Your task to perform on an android device: change the clock style Image 0: 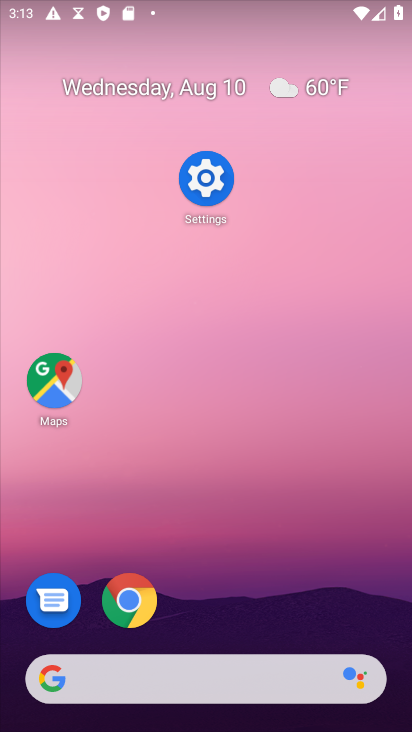
Step 0: drag from (253, 629) to (194, 24)
Your task to perform on an android device: change the clock style Image 1: 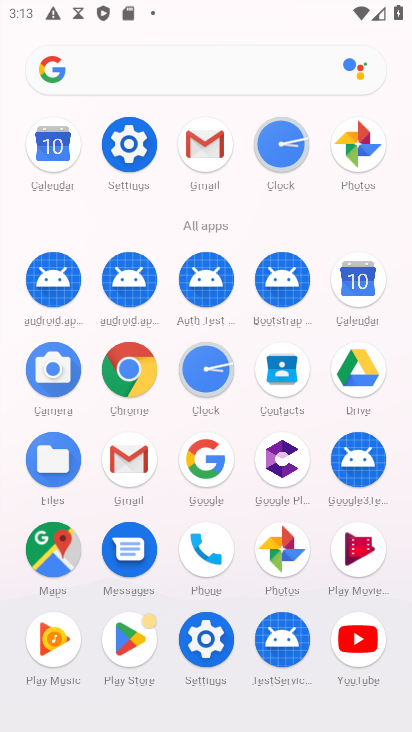
Step 1: click (188, 382)
Your task to perform on an android device: change the clock style Image 2: 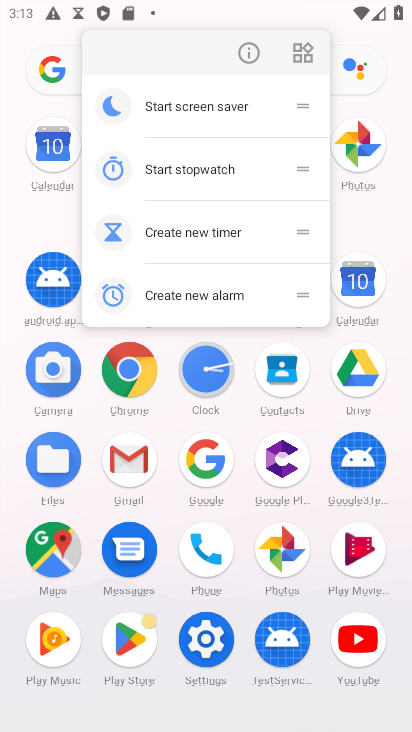
Step 2: click (198, 386)
Your task to perform on an android device: change the clock style Image 3: 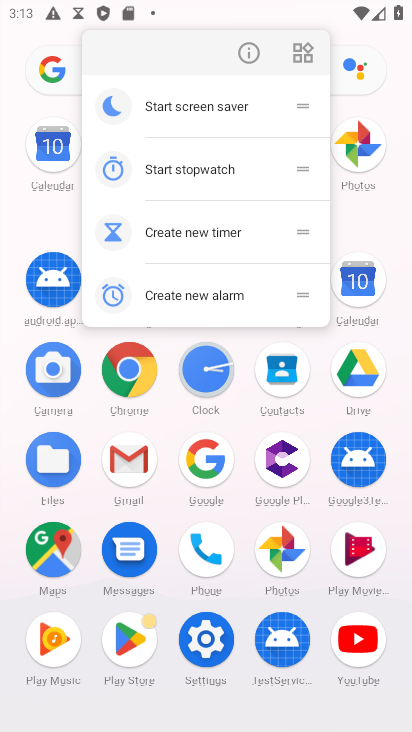
Step 3: click (196, 386)
Your task to perform on an android device: change the clock style Image 4: 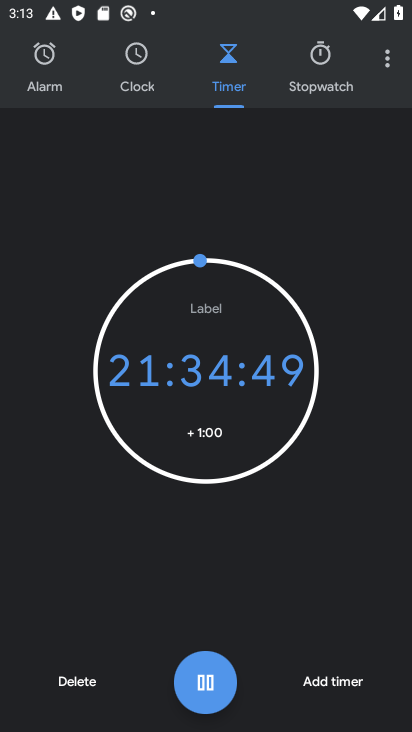
Step 4: click (385, 58)
Your task to perform on an android device: change the clock style Image 5: 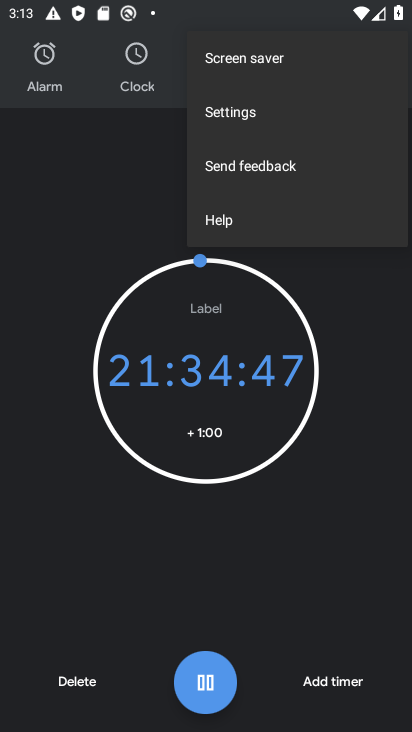
Step 5: click (217, 116)
Your task to perform on an android device: change the clock style Image 6: 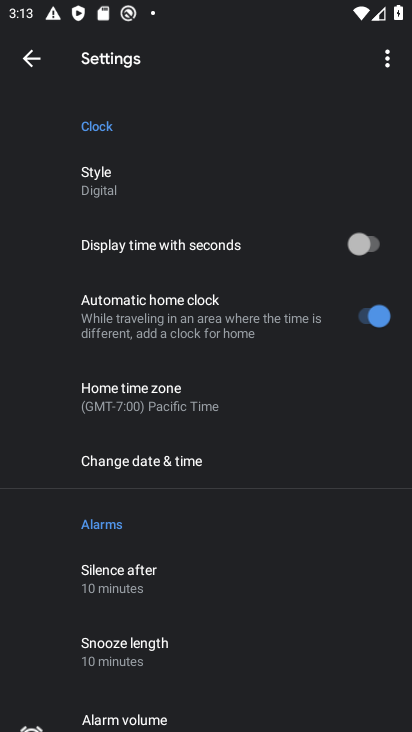
Step 6: click (107, 192)
Your task to perform on an android device: change the clock style Image 7: 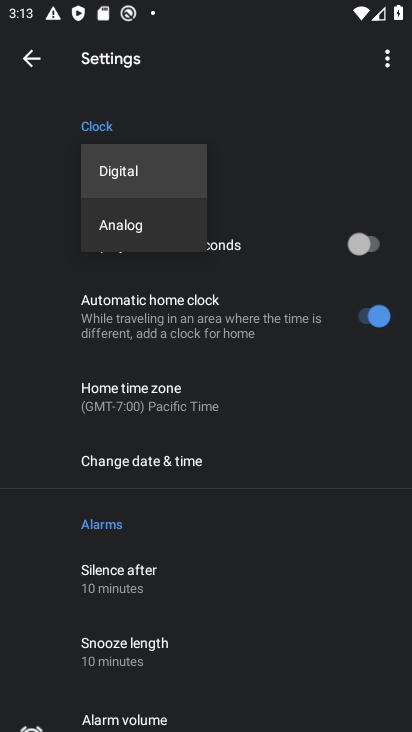
Step 7: click (127, 232)
Your task to perform on an android device: change the clock style Image 8: 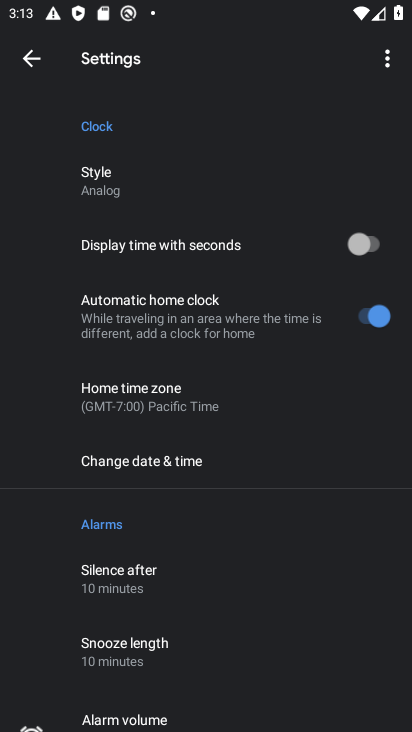
Step 8: task complete